Your task to perform on an android device: clear all cookies in the chrome app Image 0: 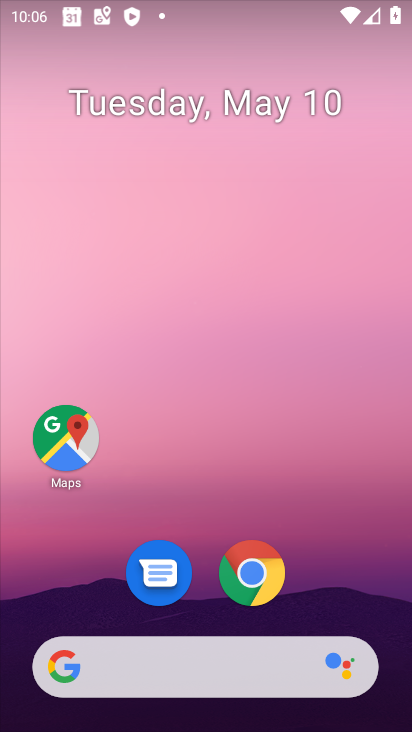
Step 0: drag from (319, 528) to (214, 134)
Your task to perform on an android device: clear all cookies in the chrome app Image 1: 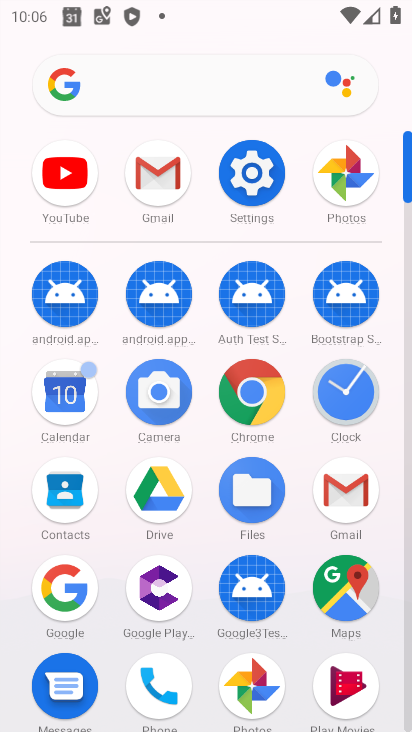
Step 1: click (246, 395)
Your task to perform on an android device: clear all cookies in the chrome app Image 2: 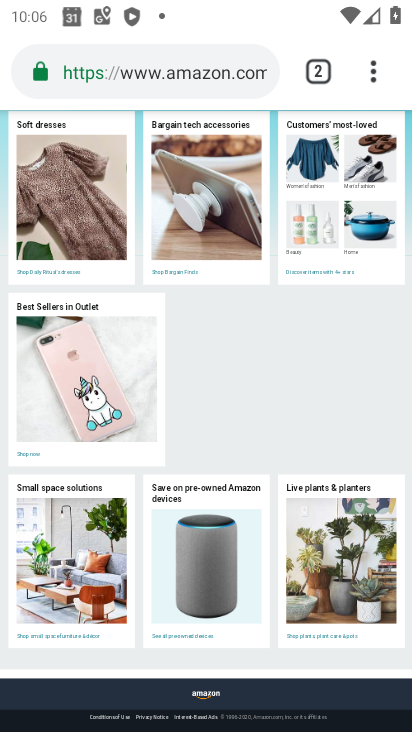
Step 2: click (372, 66)
Your task to perform on an android device: clear all cookies in the chrome app Image 3: 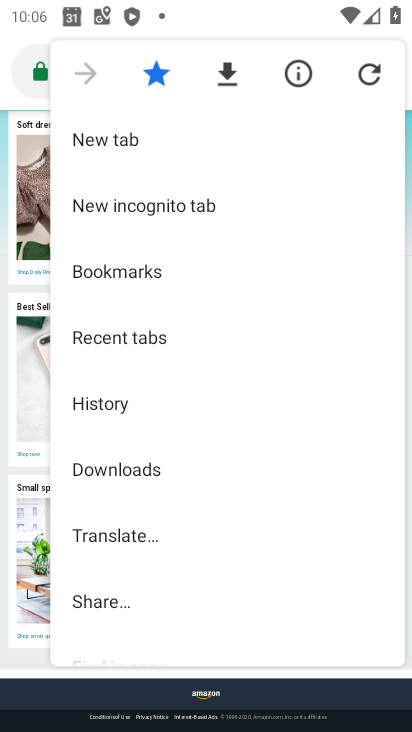
Step 3: click (94, 399)
Your task to perform on an android device: clear all cookies in the chrome app Image 4: 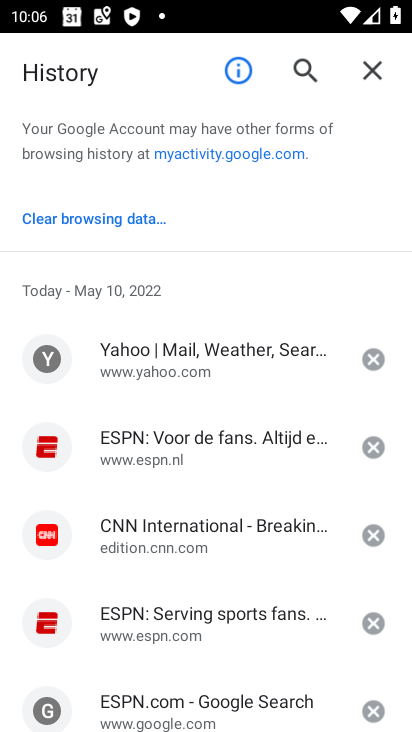
Step 4: click (109, 215)
Your task to perform on an android device: clear all cookies in the chrome app Image 5: 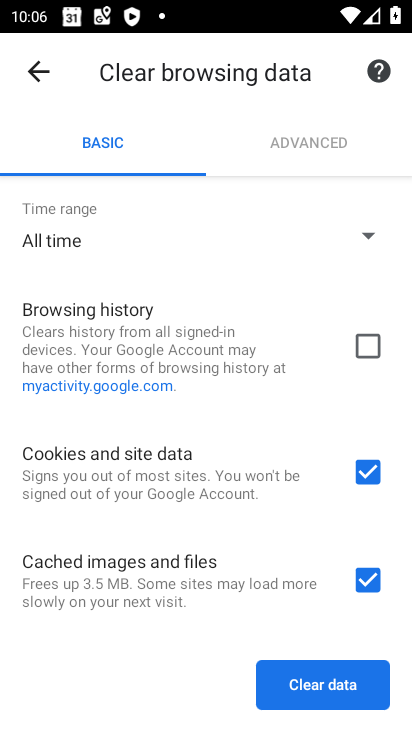
Step 5: click (368, 590)
Your task to perform on an android device: clear all cookies in the chrome app Image 6: 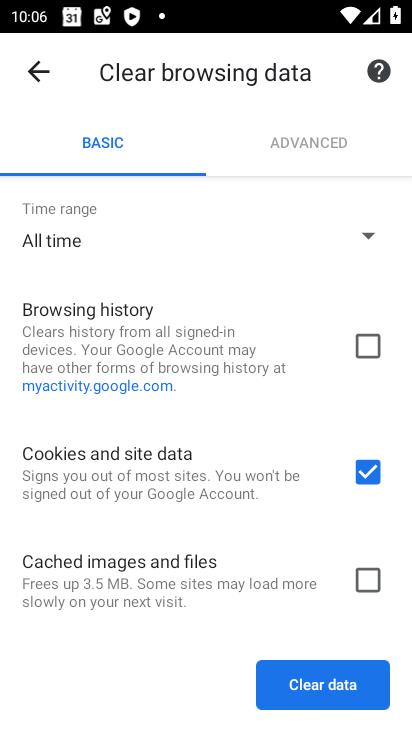
Step 6: click (336, 662)
Your task to perform on an android device: clear all cookies in the chrome app Image 7: 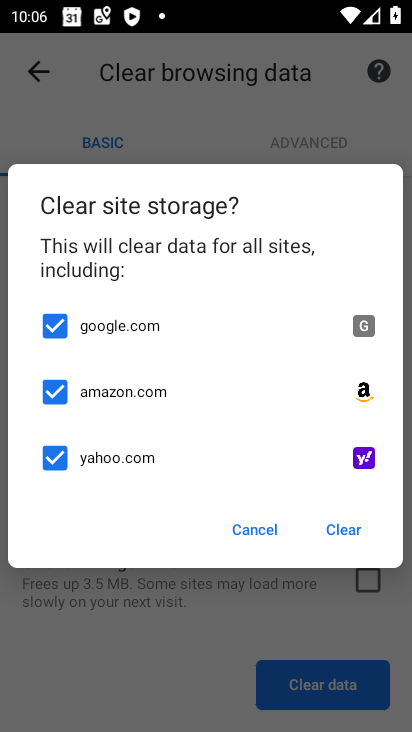
Step 7: click (347, 528)
Your task to perform on an android device: clear all cookies in the chrome app Image 8: 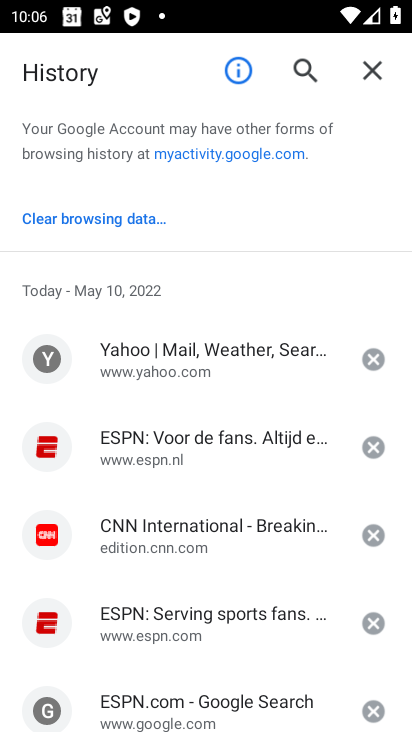
Step 8: task complete